Your task to perform on an android device: stop showing notifications on the lock screen Image 0: 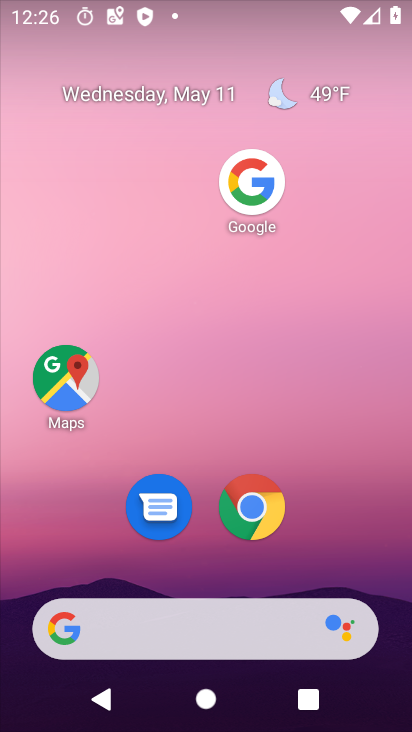
Step 0: drag from (211, 547) to (178, 99)
Your task to perform on an android device: stop showing notifications on the lock screen Image 1: 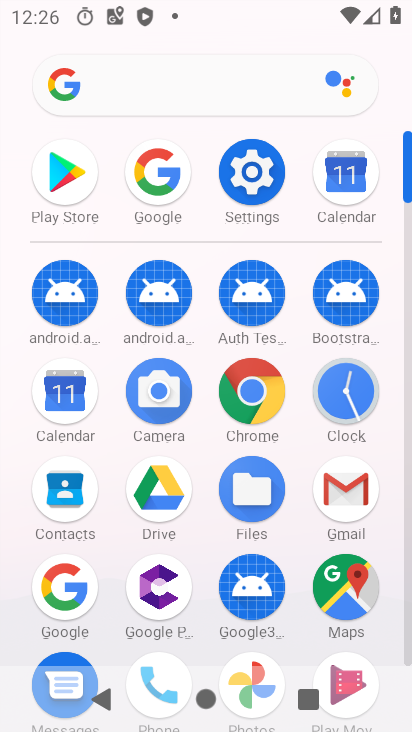
Step 1: click (257, 179)
Your task to perform on an android device: stop showing notifications on the lock screen Image 2: 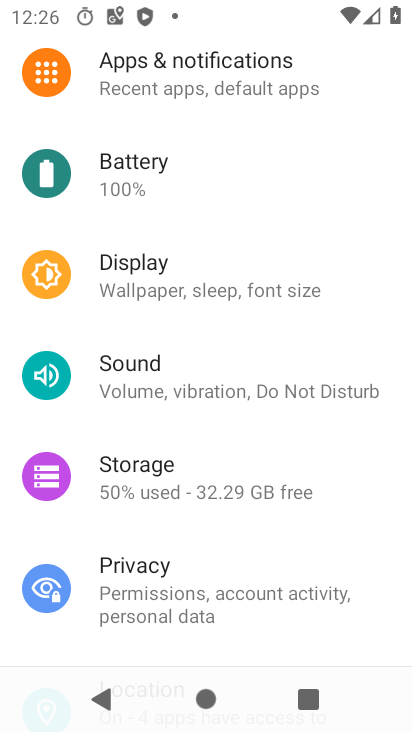
Step 2: drag from (179, 216) to (206, 526)
Your task to perform on an android device: stop showing notifications on the lock screen Image 3: 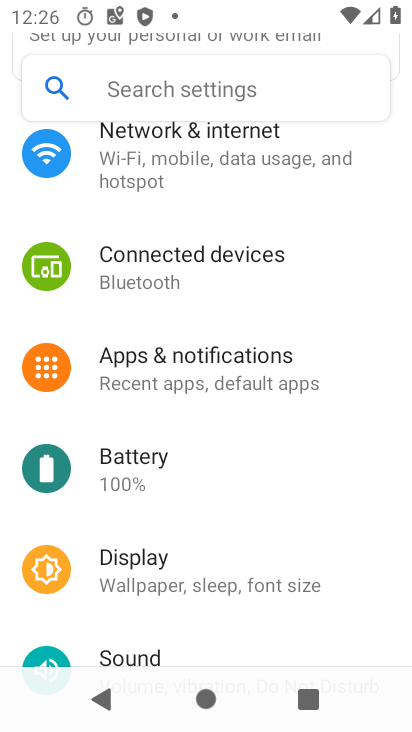
Step 3: click (180, 365)
Your task to perform on an android device: stop showing notifications on the lock screen Image 4: 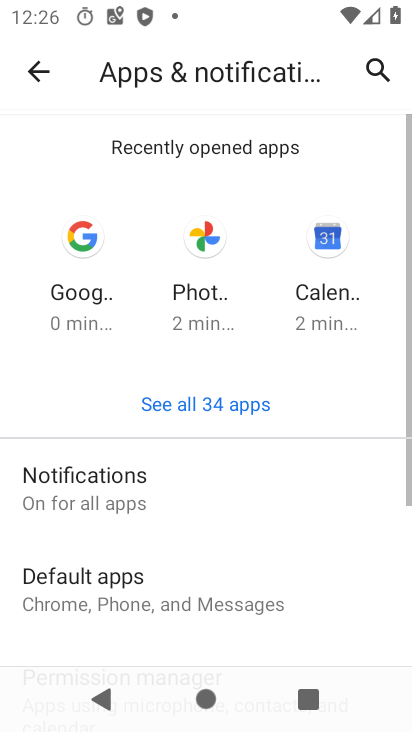
Step 4: click (129, 480)
Your task to perform on an android device: stop showing notifications on the lock screen Image 5: 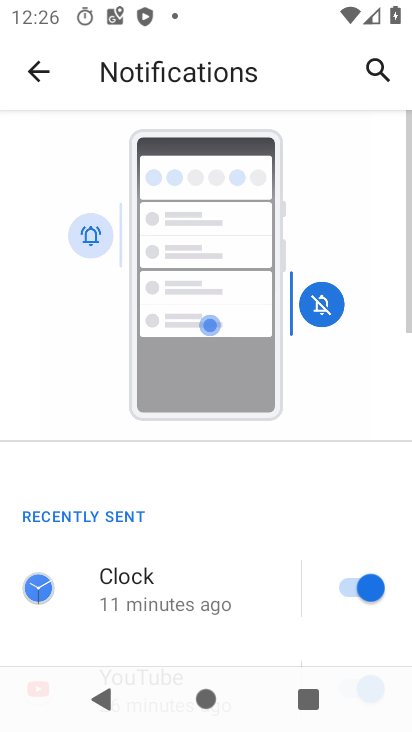
Step 5: drag from (234, 564) to (214, 15)
Your task to perform on an android device: stop showing notifications on the lock screen Image 6: 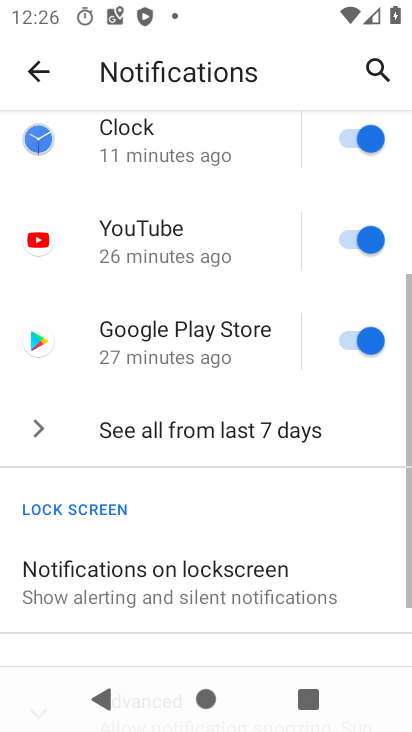
Step 6: drag from (196, 514) to (168, 295)
Your task to perform on an android device: stop showing notifications on the lock screen Image 7: 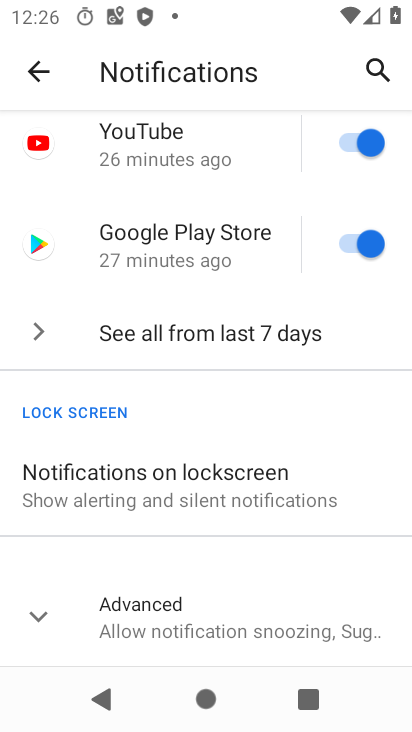
Step 7: click (153, 454)
Your task to perform on an android device: stop showing notifications on the lock screen Image 8: 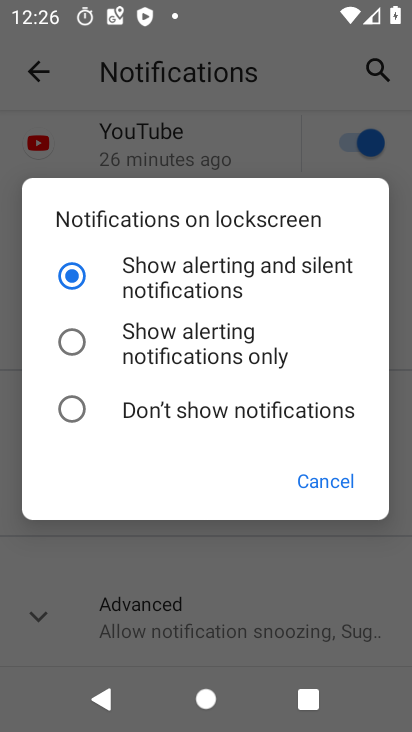
Step 8: click (70, 417)
Your task to perform on an android device: stop showing notifications on the lock screen Image 9: 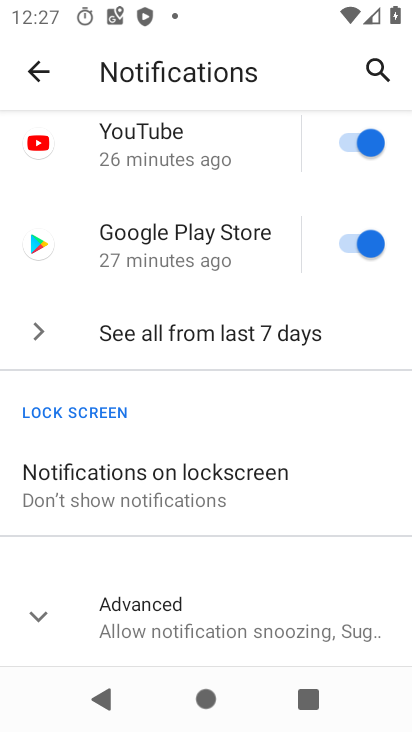
Step 9: task complete